Your task to perform on an android device: When is my next meeting? Image 0: 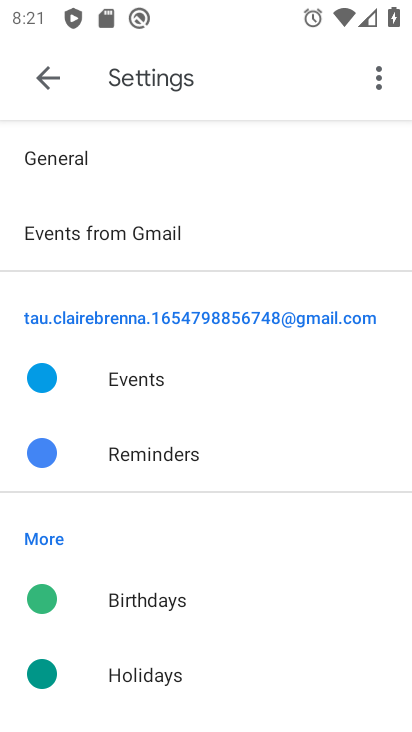
Step 0: press home button
Your task to perform on an android device: When is my next meeting? Image 1: 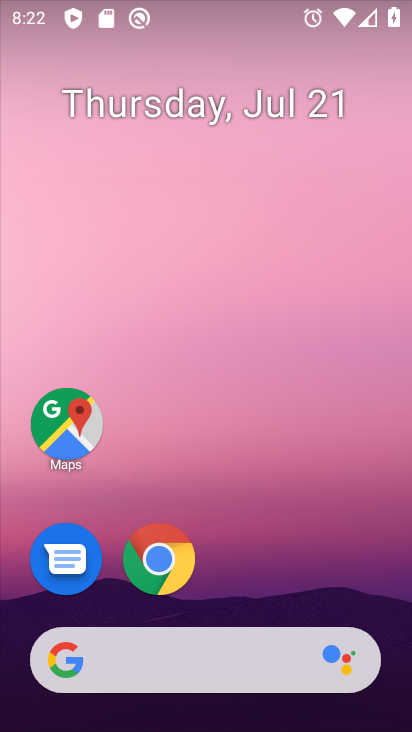
Step 1: drag from (356, 567) to (404, 108)
Your task to perform on an android device: When is my next meeting? Image 2: 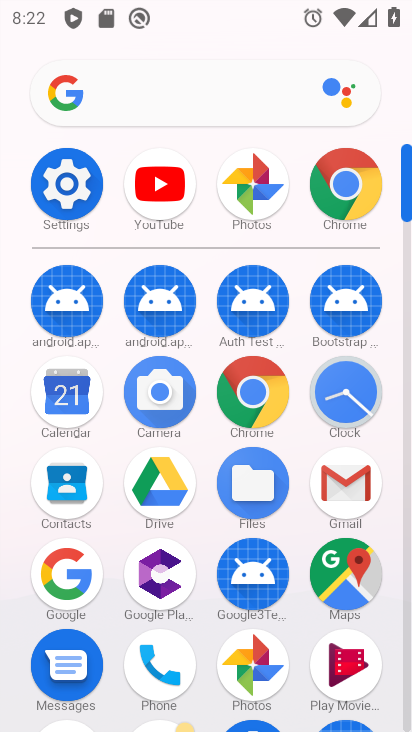
Step 2: click (73, 391)
Your task to perform on an android device: When is my next meeting? Image 3: 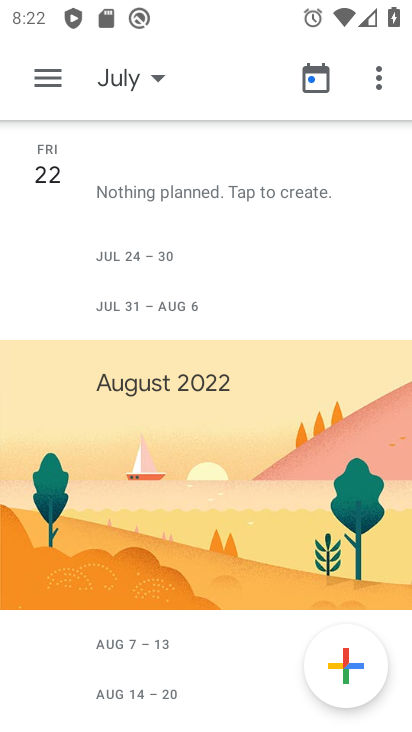
Step 3: task complete